Your task to perform on an android device: What's the weather? Image 0: 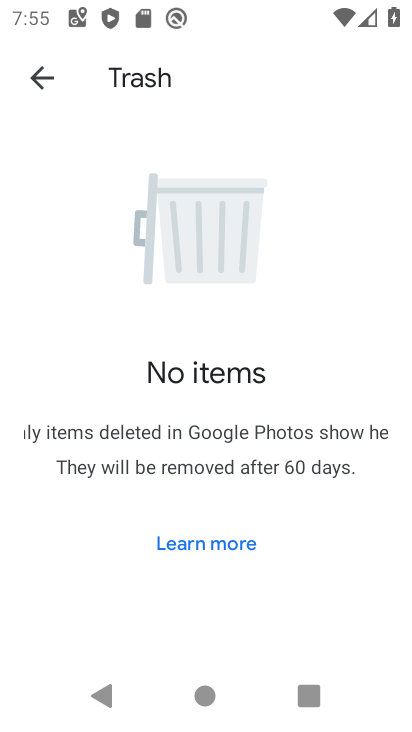
Step 0: press home button
Your task to perform on an android device: What's the weather? Image 1: 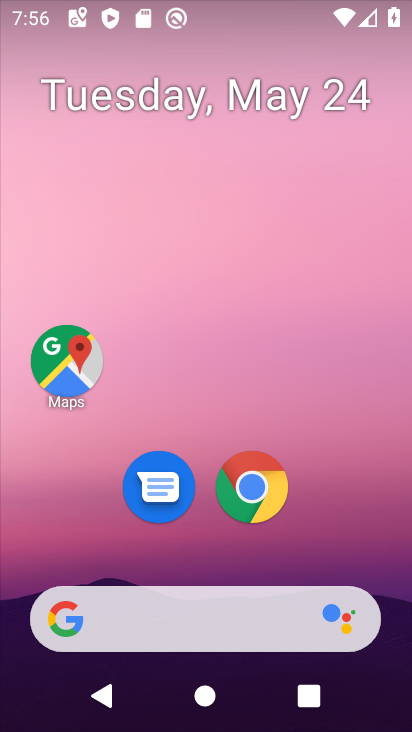
Step 1: click (158, 628)
Your task to perform on an android device: What's the weather? Image 2: 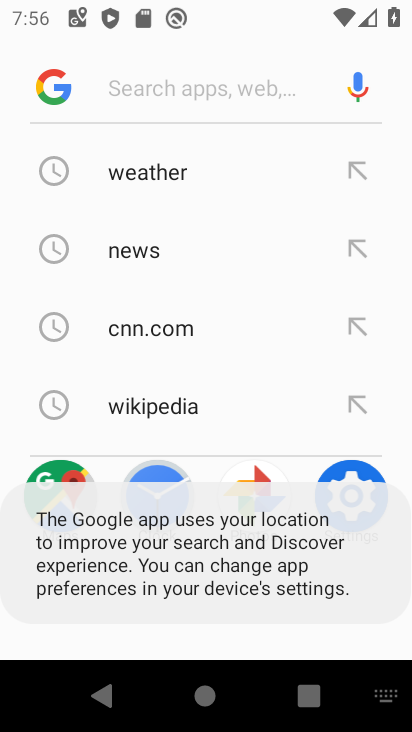
Step 2: click (141, 170)
Your task to perform on an android device: What's the weather? Image 3: 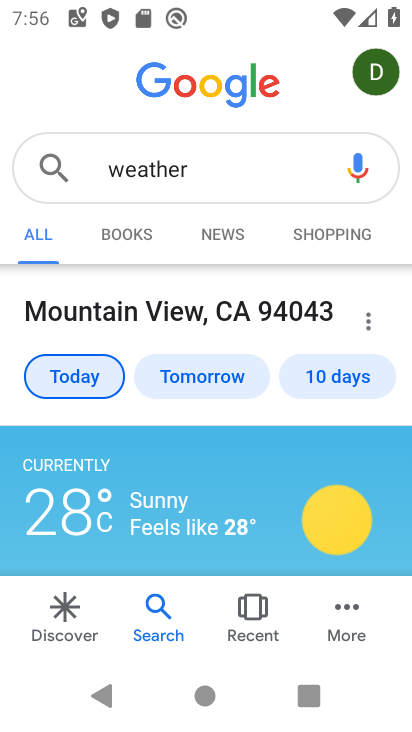
Step 3: task complete